Your task to perform on an android device: Open internet settings Image 0: 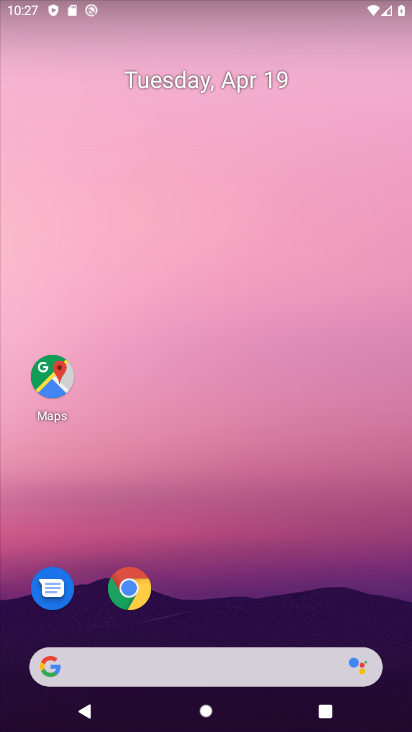
Step 0: drag from (141, 649) to (147, 193)
Your task to perform on an android device: Open internet settings Image 1: 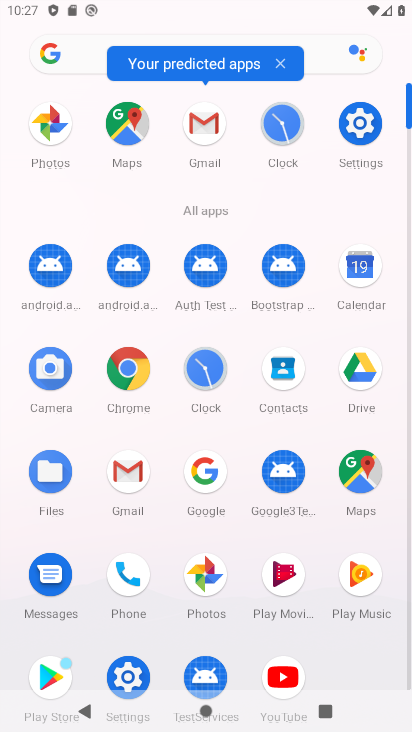
Step 1: click (363, 127)
Your task to perform on an android device: Open internet settings Image 2: 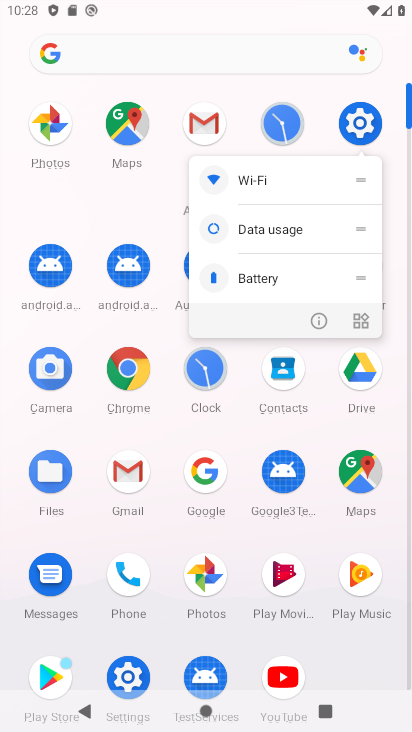
Step 2: click (366, 121)
Your task to perform on an android device: Open internet settings Image 3: 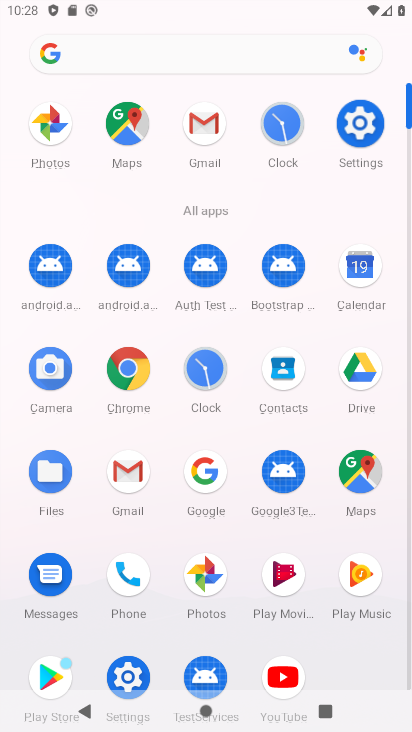
Step 3: click (365, 124)
Your task to perform on an android device: Open internet settings Image 4: 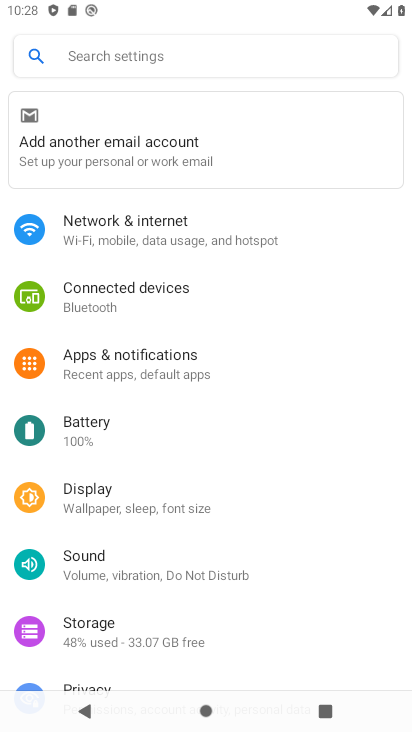
Step 4: click (129, 223)
Your task to perform on an android device: Open internet settings Image 5: 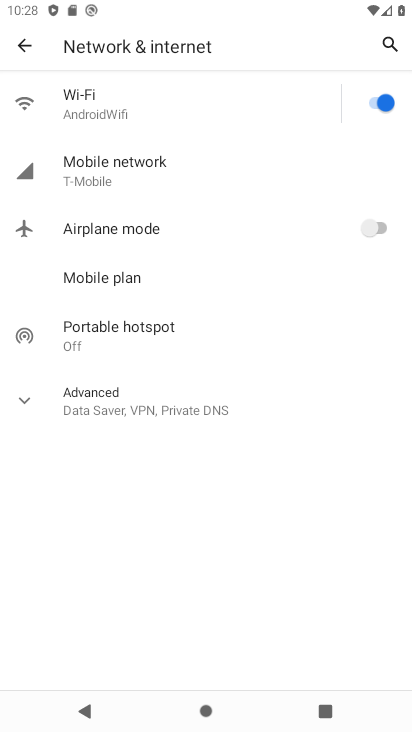
Step 5: click (135, 423)
Your task to perform on an android device: Open internet settings Image 6: 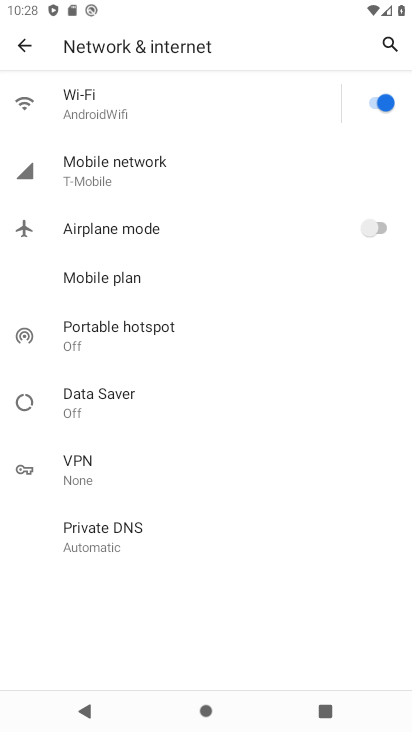
Step 6: task complete